Your task to perform on an android device: Open Google Image 0: 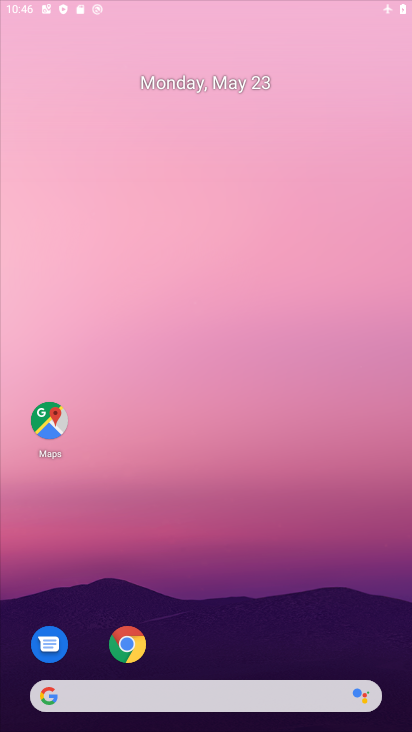
Step 0: click (175, 119)
Your task to perform on an android device: Open Google Image 1: 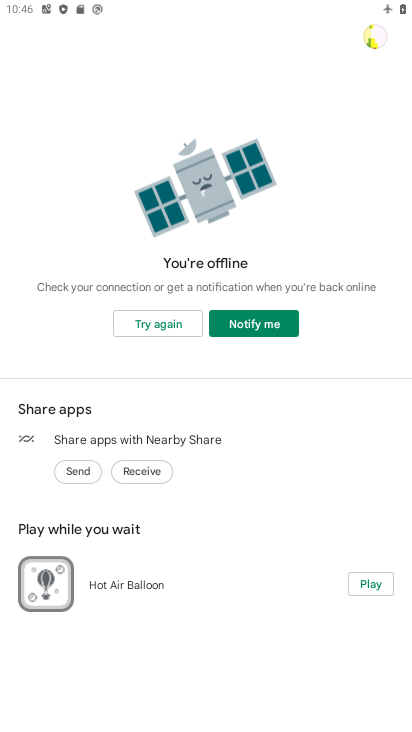
Step 1: press back button
Your task to perform on an android device: Open Google Image 2: 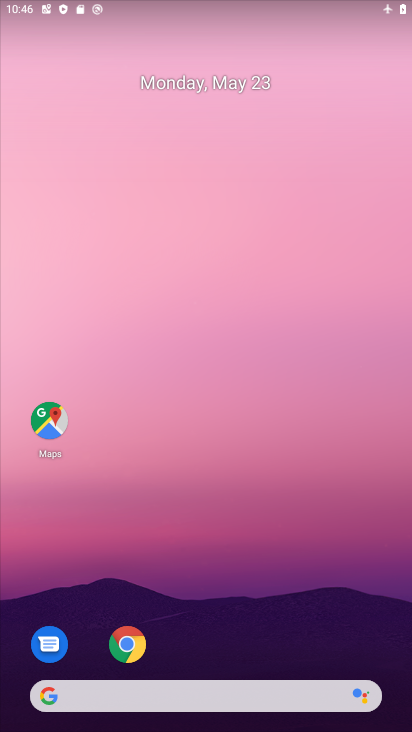
Step 2: drag from (190, 670) to (83, 124)
Your task to perform on an android device: Open Google Image 3: 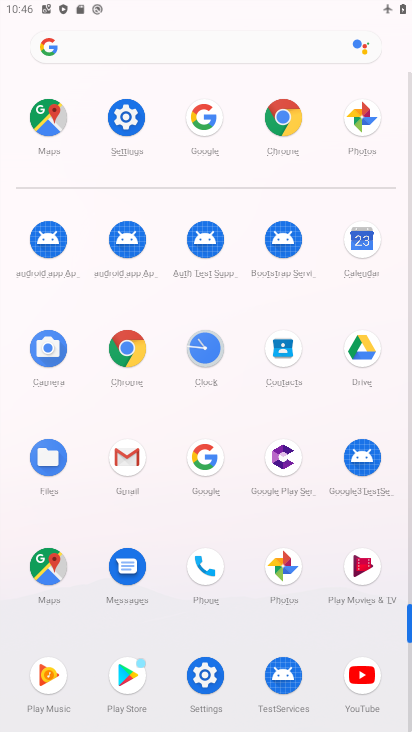
Step 3: click (200, 121)
Your task to perform on an android device: Open Google Image 4: 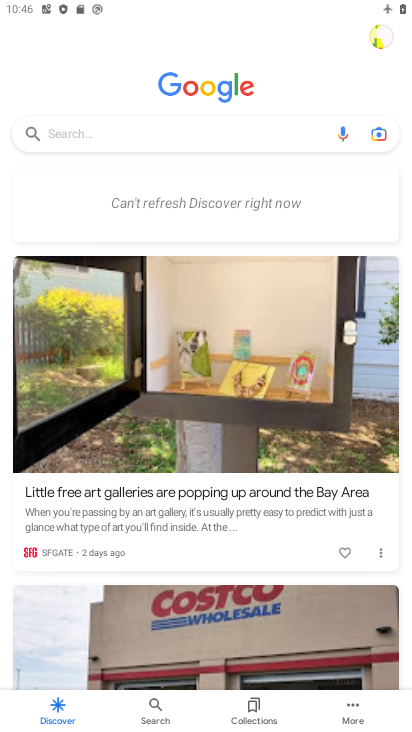
Step 4: task complete